Your task to perform on an android device: delete the emails in spam in the gmail app Image 0: 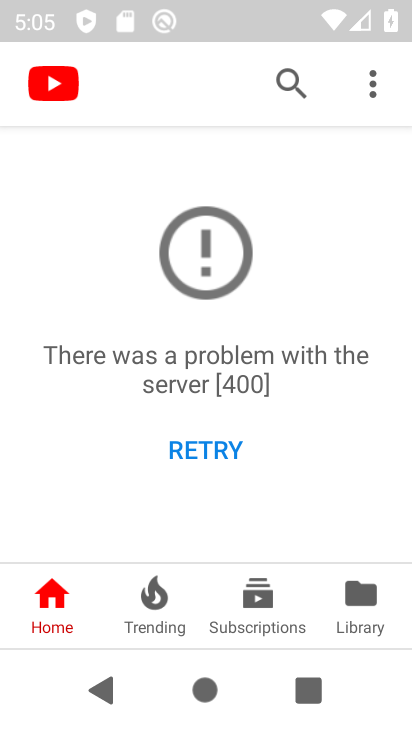
Step 0: press home button
Your task to perform on an android device: delete the emails in spam in the gmail app Image 1: 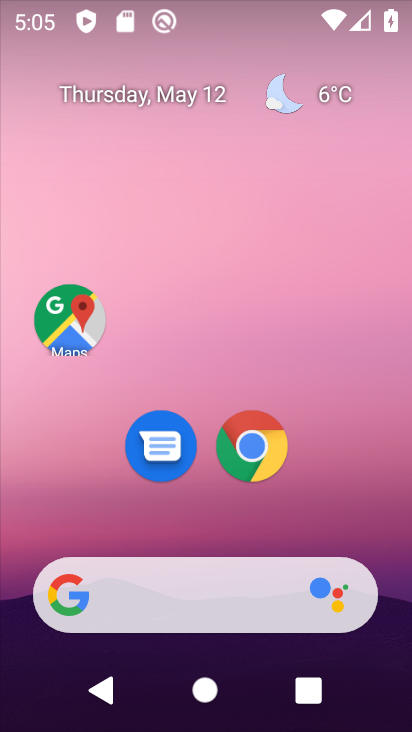
Step 1: drag from (359, 489) to (386, 139)
Your task to perform on an android device: delete the emails in spam in the gmail app Image 2: 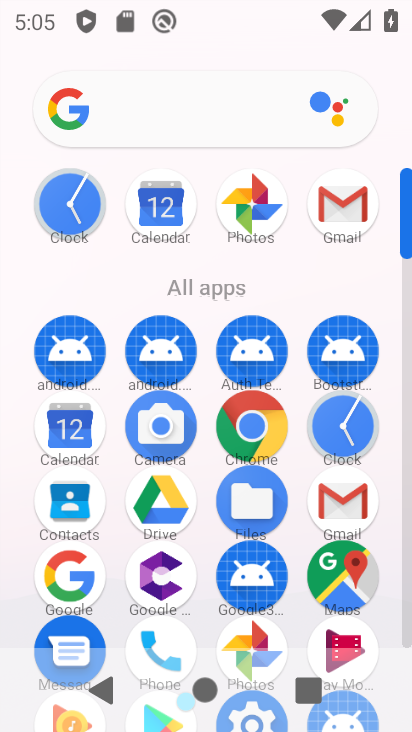
Step 2: click (342, 210)
Your task to perform on an android device: delete the emails in spam in the gmail app Image 3: 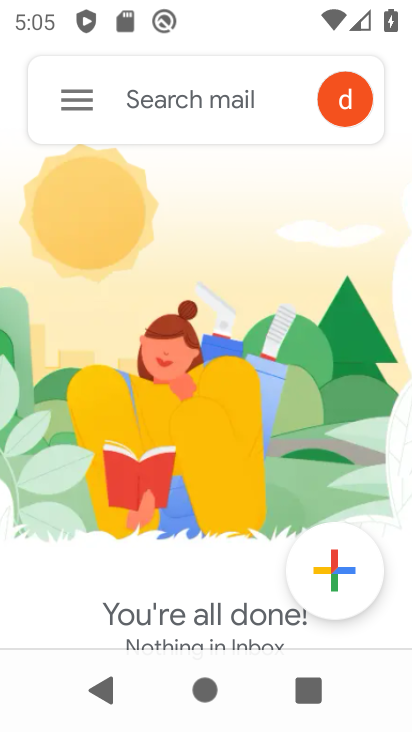
Step 3: click (73, 91)
Your task to perform on an android device: delete the emails in spam in the gmail app Image 4: 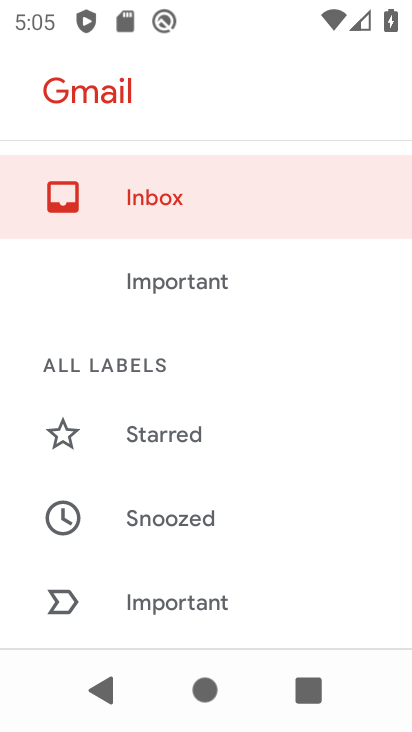
Step 4: drag from (266, 542) to (313, 214)
Your task to perform on an android device: delete the emails in spam in the gmail app Image 5: 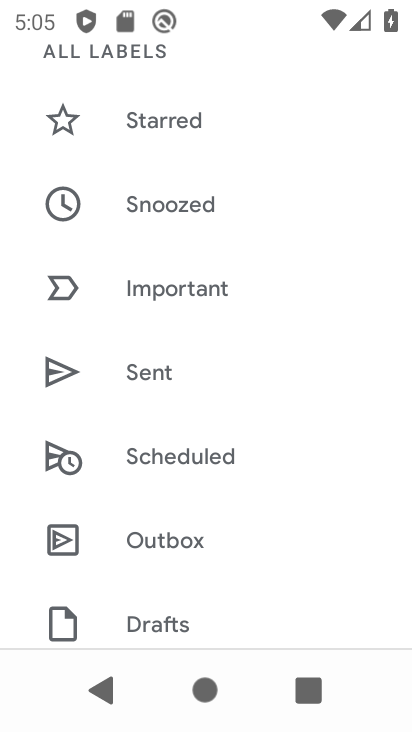
Step 5: drag from (275, 492) to (323, 228)
Your task to perform on an android device: delete the emails in spam in the gmail app Image 6: 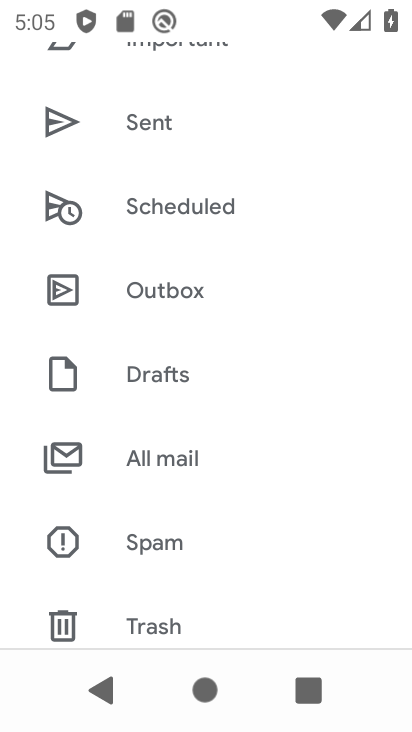
Step 6: click (136, 539)
Your task to perform on an android device: delete the emails in spam in the gmail app Image 7: 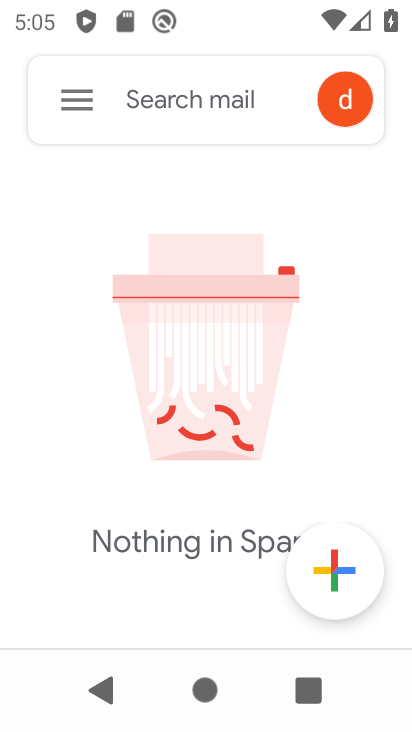
Step 7: task complete